Your task to perform on an android device: What is the news today? Image 0: 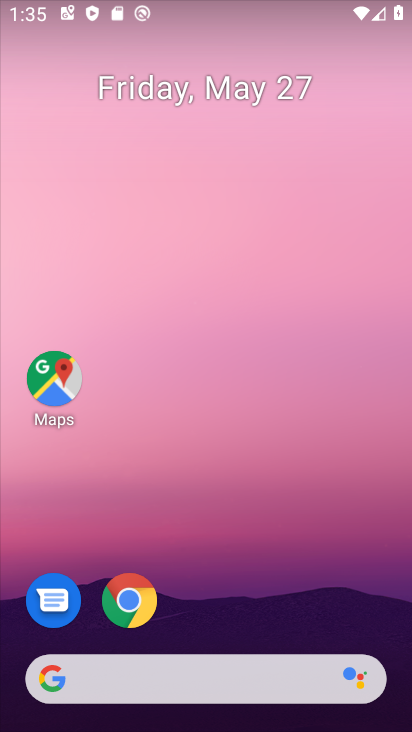
Step 0: drag from (9, 239) to (347, 279)
Your task to perform on an android device: What is the news today? Image 1: 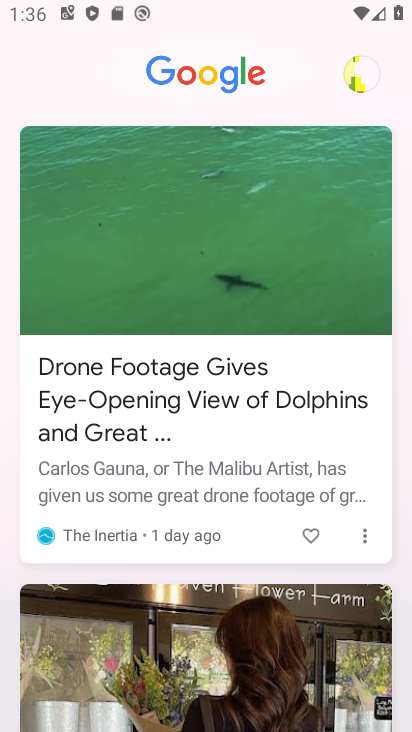
Step 1: task complete